Your task to perform on an android device: Show me popular videos on Youtube Image 0: 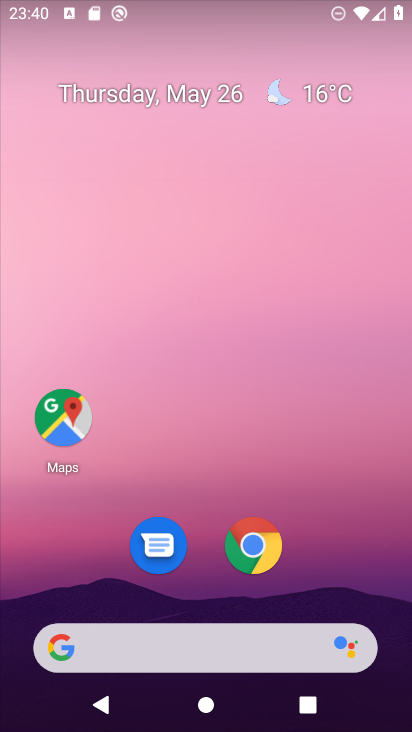
Step 0: press home button
Your task to perform on an android device: Show me popular videos on Youtube Image 1: 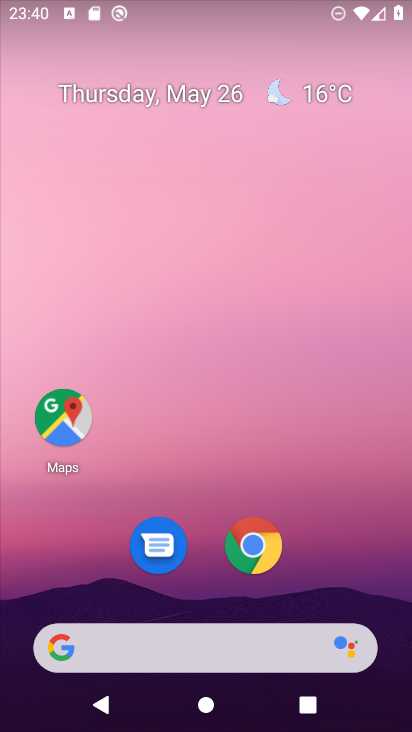
Step 1: drag from (287, 604) to (273, 201)
Your task to perform on an android device: Show me popular videos on Youtube Image 2: 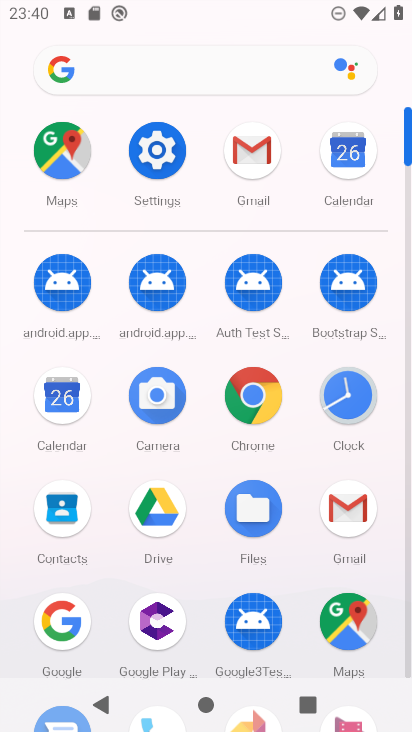
Step 2: drag from (398, 662) to (370, 291)
Your task to perform on an android device: Show me popular videos on Youtube Image 3: 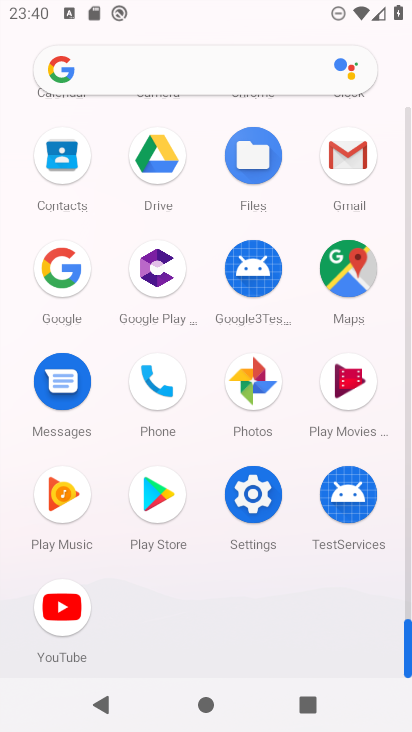
Step 3: click (65, 618)
Your task to perform on an android device: Show me popular videos on Youtube Image 4: 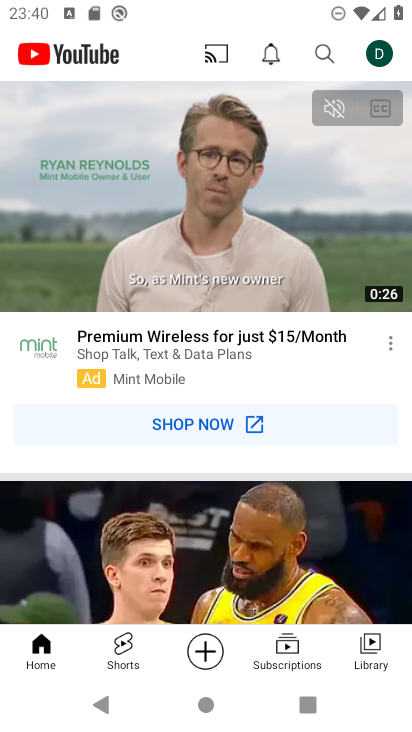
Step 4: click (34, 655)
Your task to perform on an android device: Show me popular videos on Youtube Image 5: 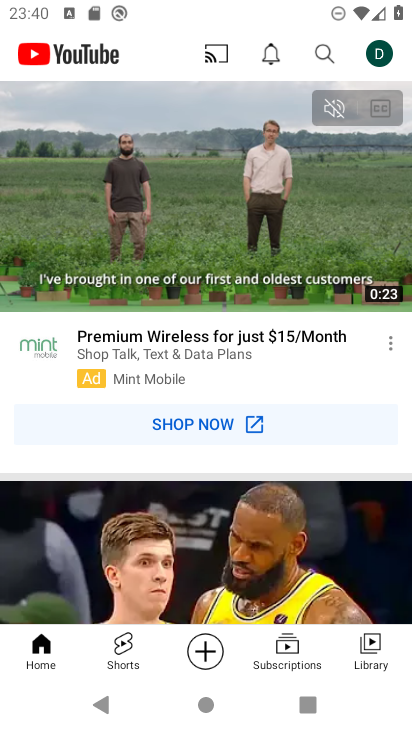
Step 5: click (37, 653)
Your task to perform on an android device: Show me popular videos on Youtube Image 6: 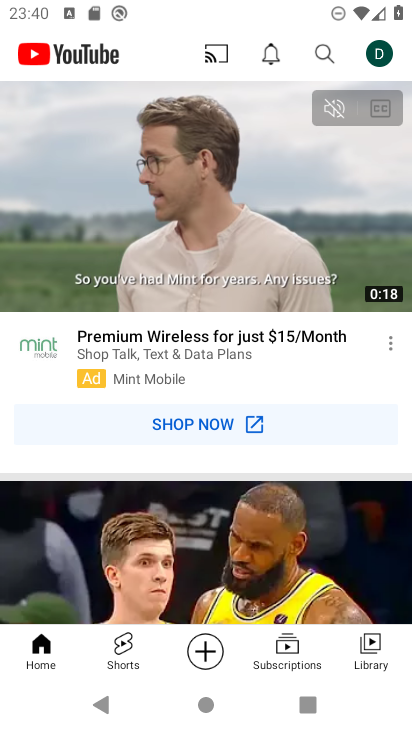
Step 6: drag from (46, 374) to (7, 723)
Your task to perform on an android device: Show me popular videos on Youtube Image 7: 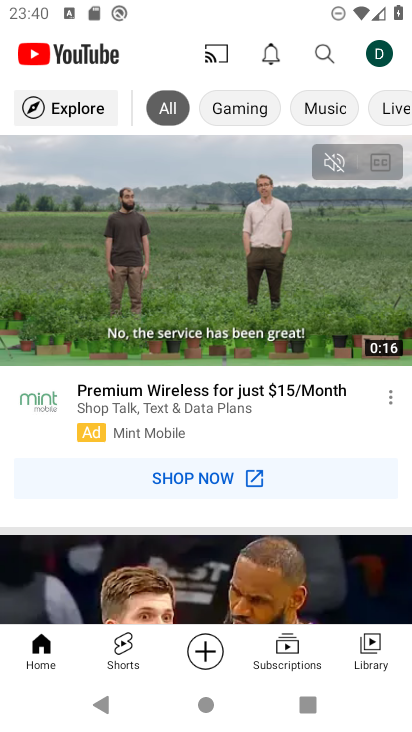
Step 7: drag from (166, 170) to (184, 723)
Your task to perform on an android device: Show me popular videos on Youtube Image 8: 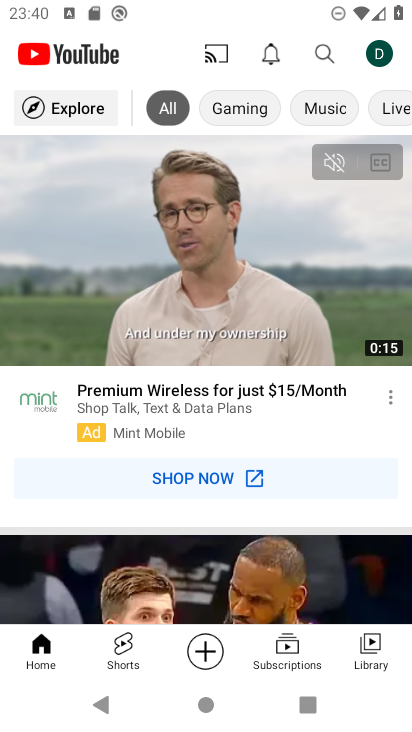
Step 8: click (84, 105)
Your task to perform on an android device: Show me popular videos on Youtube Image 9: 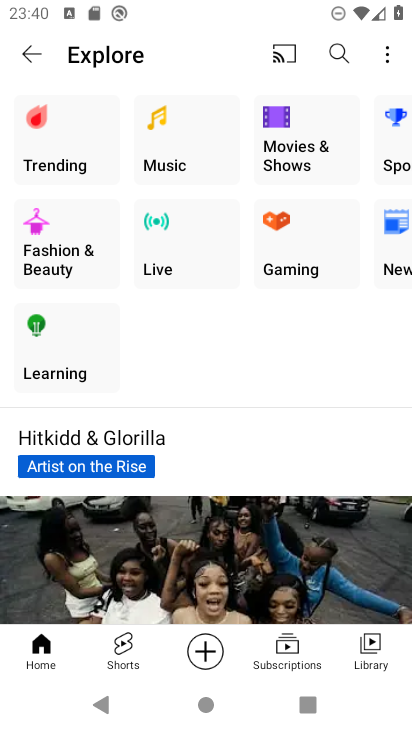
Step 9: click (69, 147)
Your task to perform on an android device: Show me popular videos on Youtube Image 10: 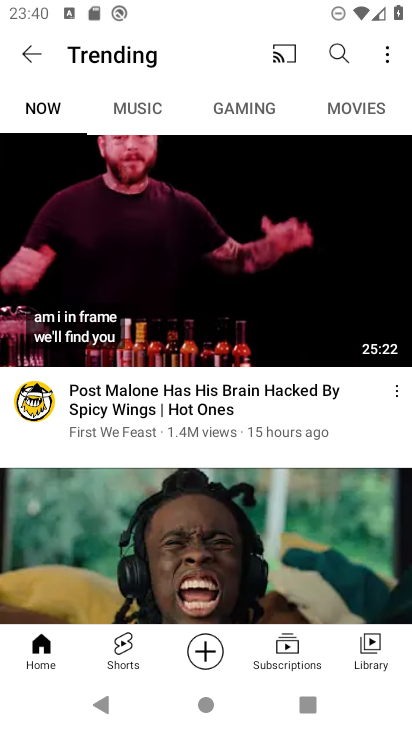
Step 10: task complete